Your task to perform on an android device: Open the phone app and click the voicemail tab. Image 0: 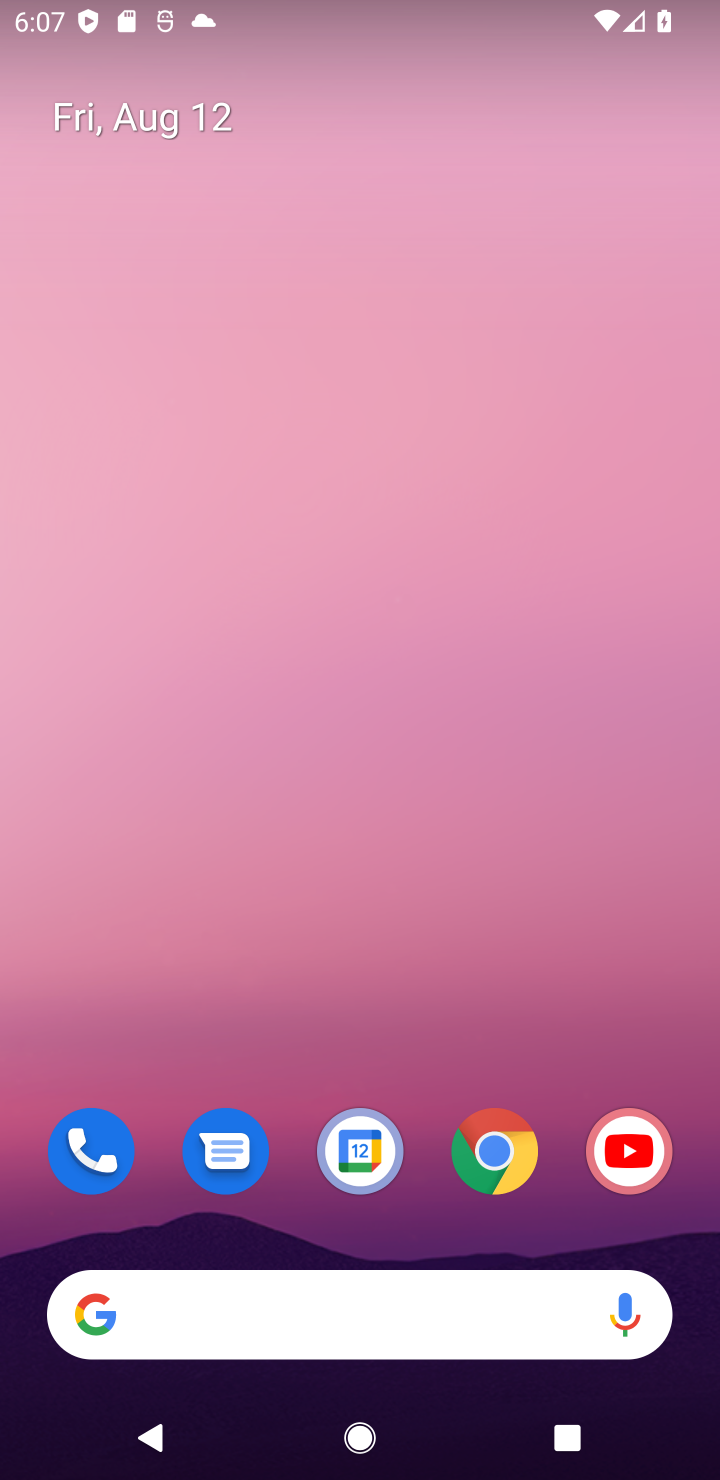
Step 0: drag from (445, 1079) to (528, 13)
Your task to perform on an android device: Open the phone app and click the voicemail tab. Image 1: 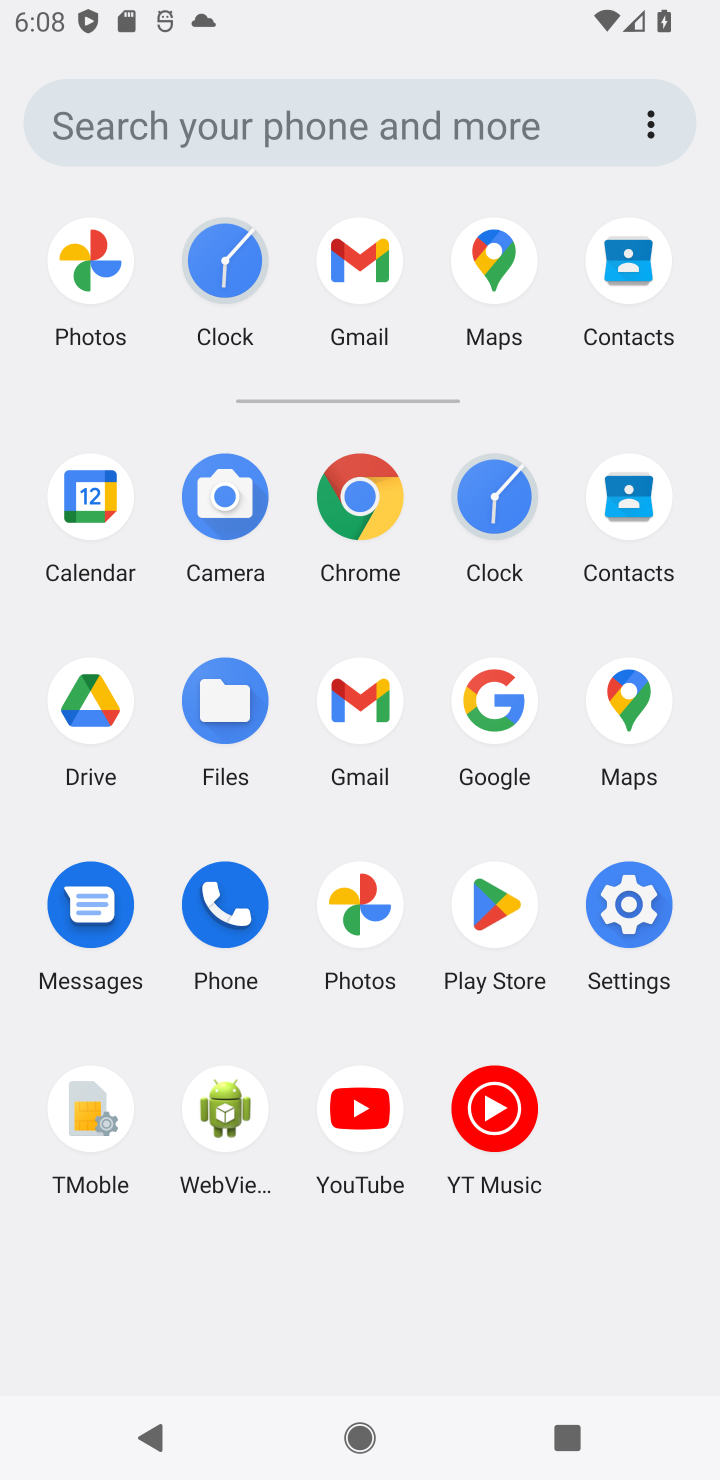
Step 1: click (197, 917)
Your task to perform on an android device: Open the phone app and click the voicemail tab. Image 2: 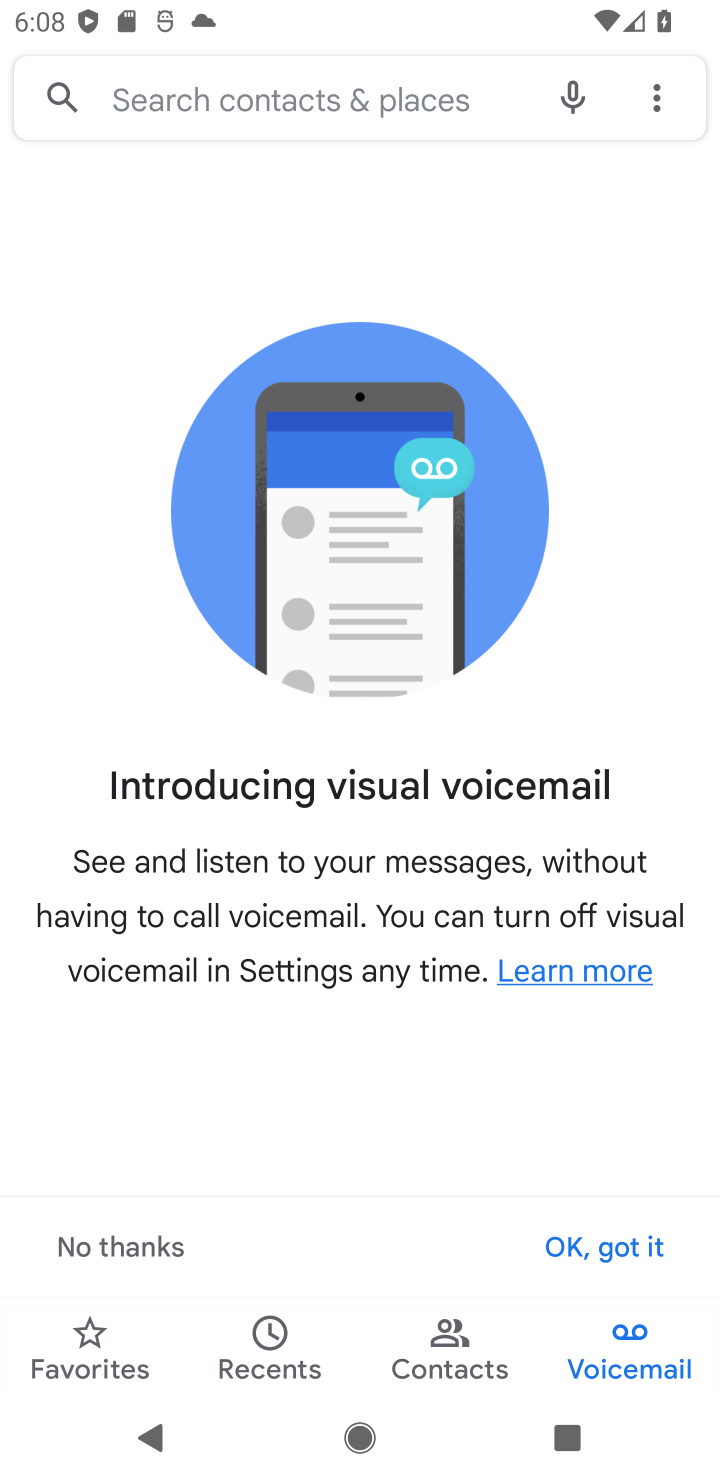
Step 2: click (674, 1254)
Your task to perform on an android device: Open the phone app and click the voicemail tab. Image 3: 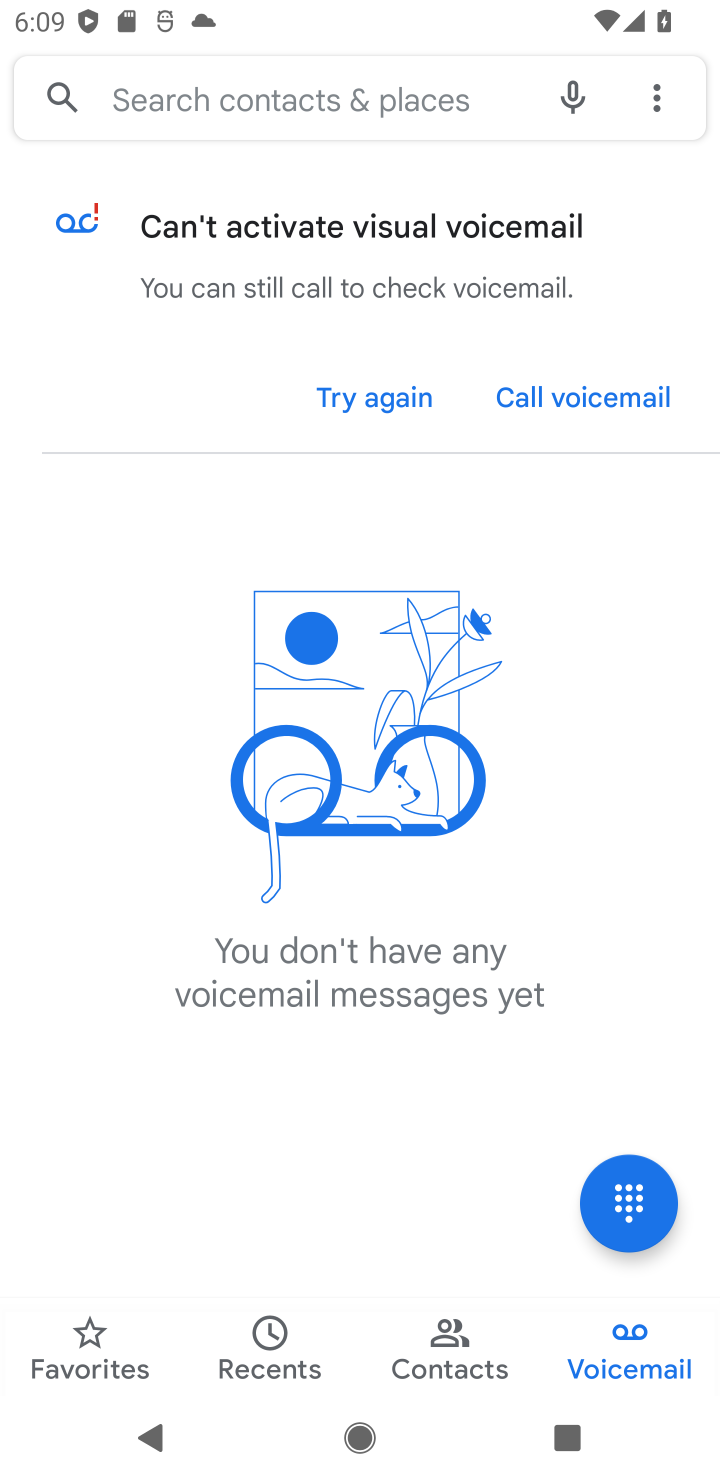
Step 3: task complete